Your task to perform on an android device: Open ESPN.com Image 0: 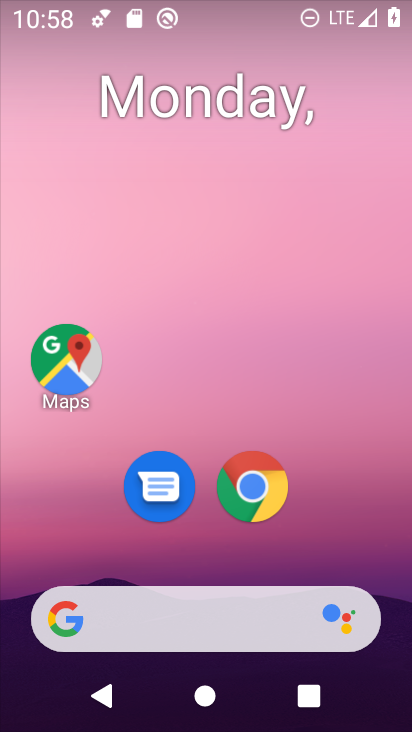
Step 0: press home button
Your task to perform on an android device: Open ESPN.com Image 1: 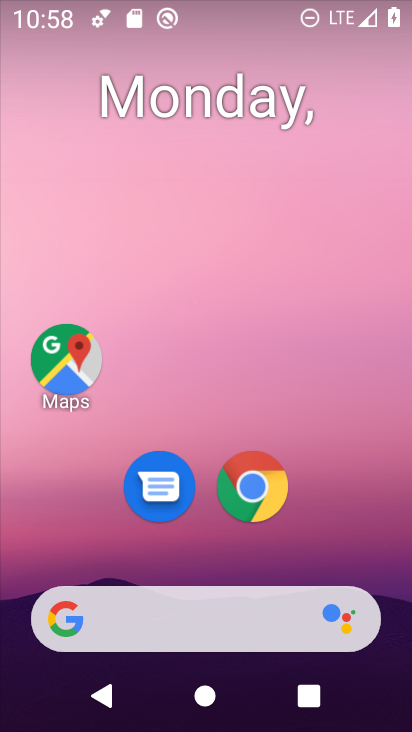
Step 1: click (265, 474)
Your task to perform on an android device: Open ESPN.com Image 2: 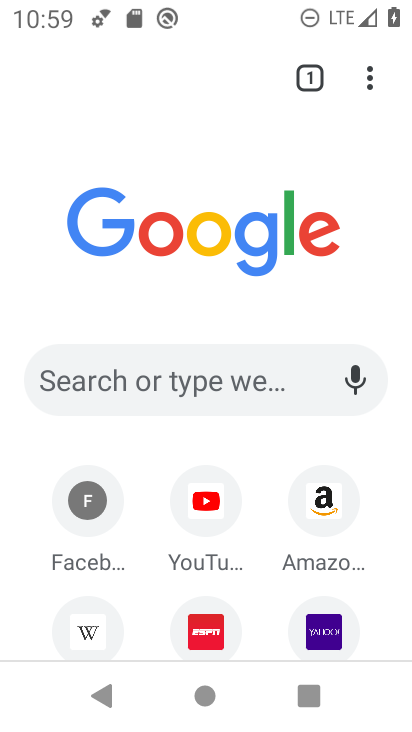
Step 2: click (224, 631)
Your task to perform on an android device: Open ESPN.com Image 3: 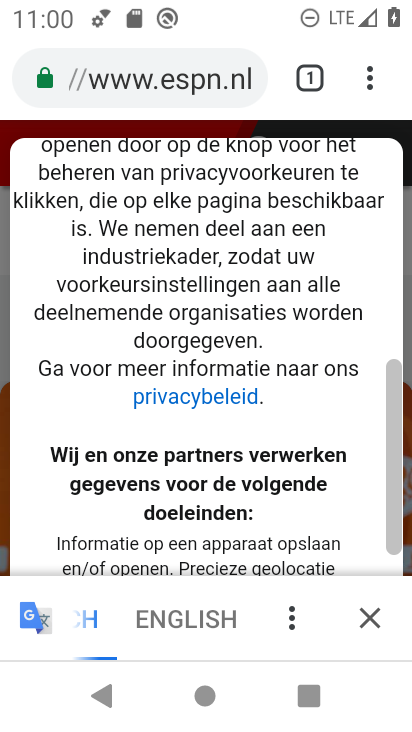
Step 3: click (367, 613)
Your task to perform on an android device: Open ESPN.com Image 4: 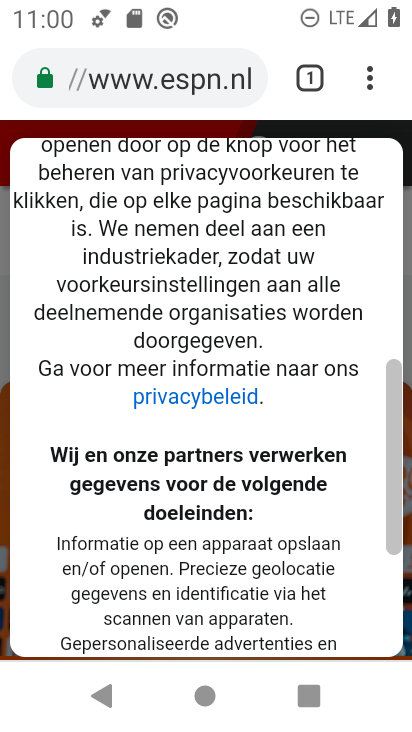
Step 4: task complete